Your task to perform on an android device: refresh tabs in the chrome app Image 0: 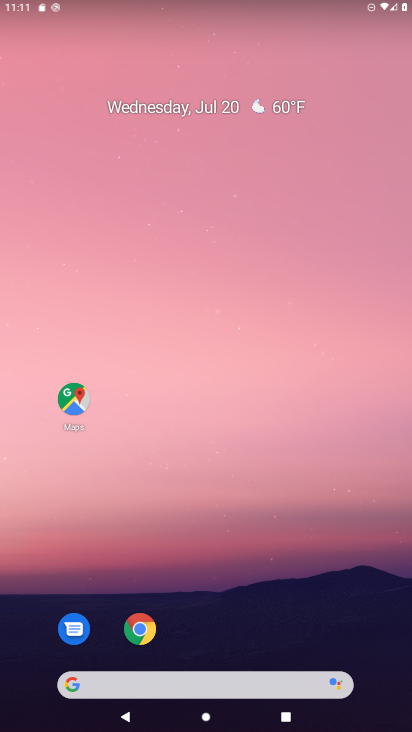
Step 0: click (135, 617)
Your task to perform on an android device: refresh tabs in the chrome app Image 1: 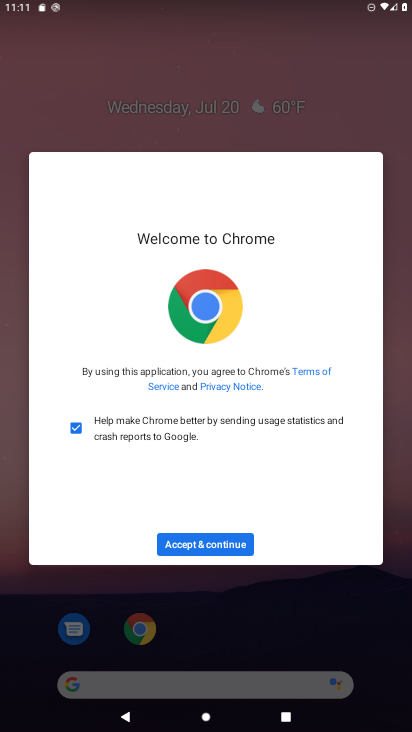
Step 1: click (234, 547)
Your task to perform on an android device: refresh tabs in the chrome app Image 2: 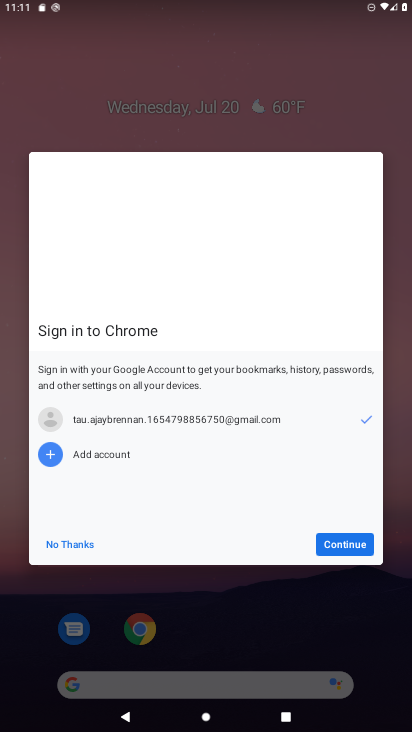
Step 2: click (354, 551)
Your task to perform on an android device: refresh tabs in the chrome app Image 3: 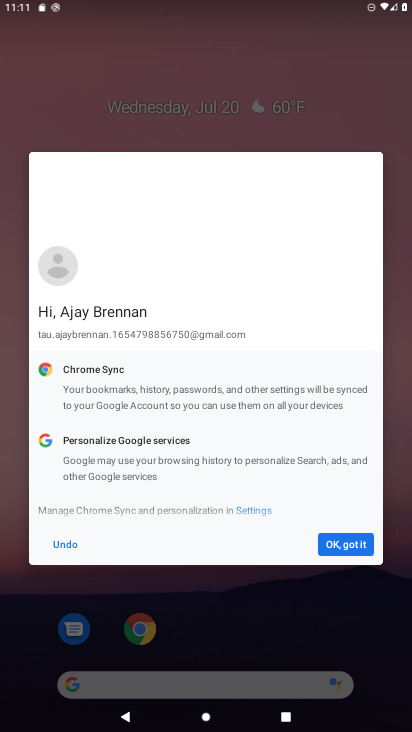
Step 3: click (354, 551)
Your task to perform on an android device: refresh tabs in the chrome app Image 4: 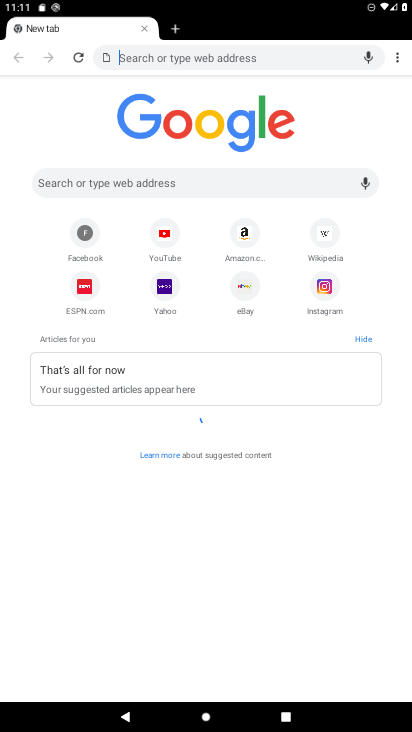
Step 4: click (394, 57)
Your task to perform on an android device: refresh tabs in the chrome app Image 5: 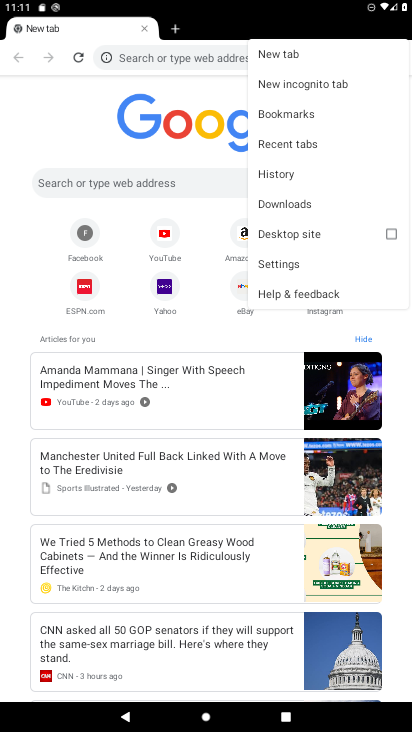
Step 5: click (76, 61)
Your task to perform on an android device: refresh tabs in the chrome app Image 6: 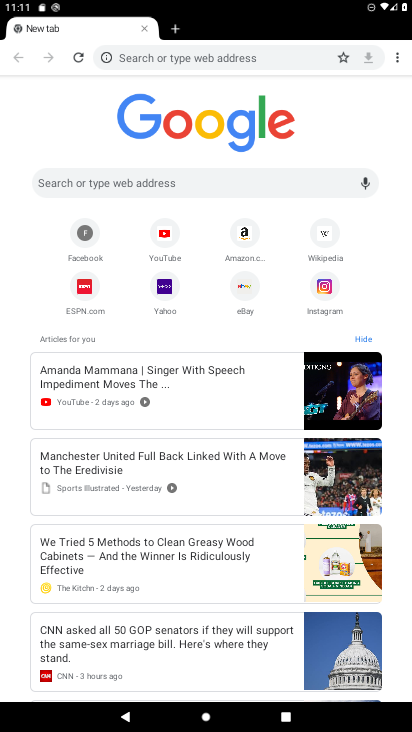
Step 6: click (80, 61)
Your task to perform on an android device: refresh tabs in the chrome app Image 7: 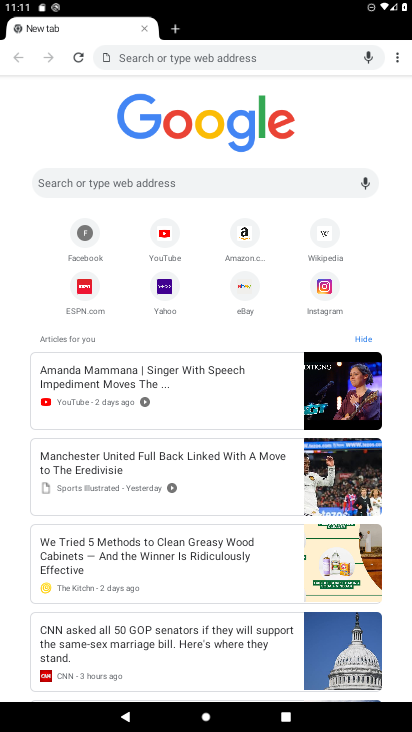
Step 7: task complete